Your task to perform on an android device: When is my next meeting? Image 0: 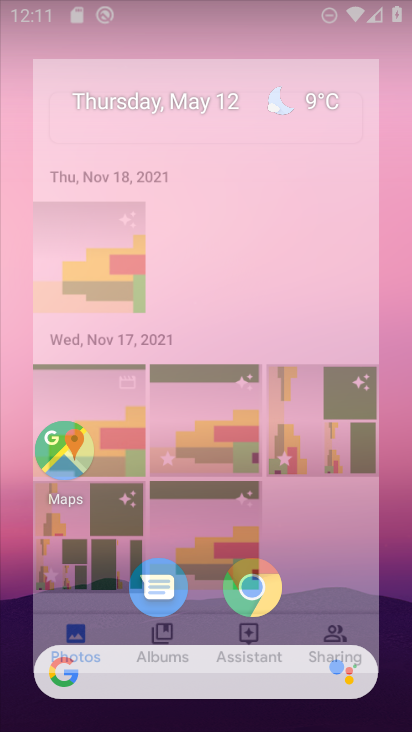
Step 0: drag from (340, 608) to (310, 185)
Your task to perform on an android device: When is my next meeting? Image 1: 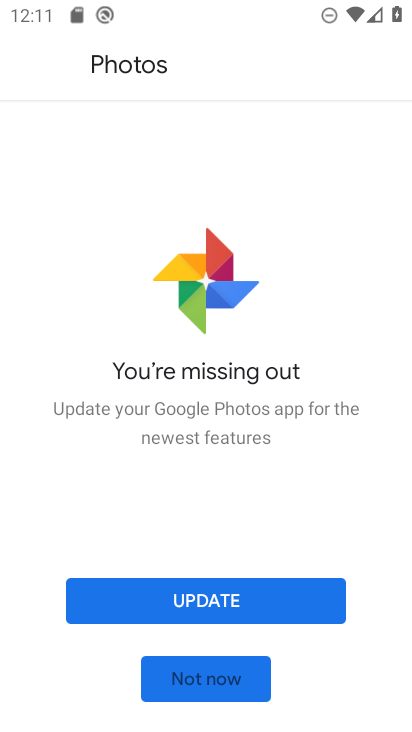
Step 1: press home button
Your task to perform on an android device: When is my next meeting? Image 2: 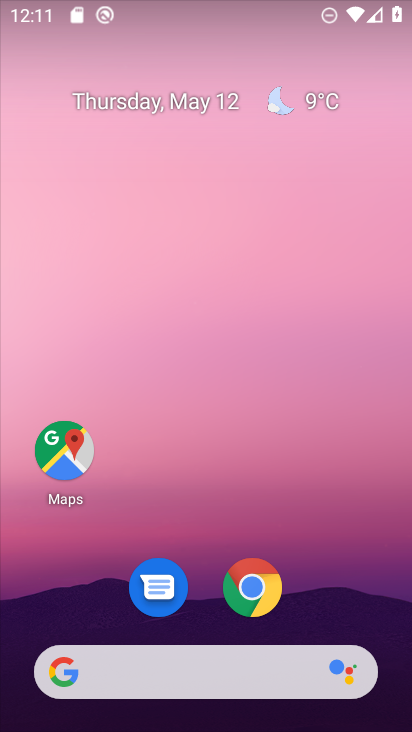
Step 2: drag from (317, 588) to (312, 227)
Your task to perform on an android device: When is my next meeting? Image 3: 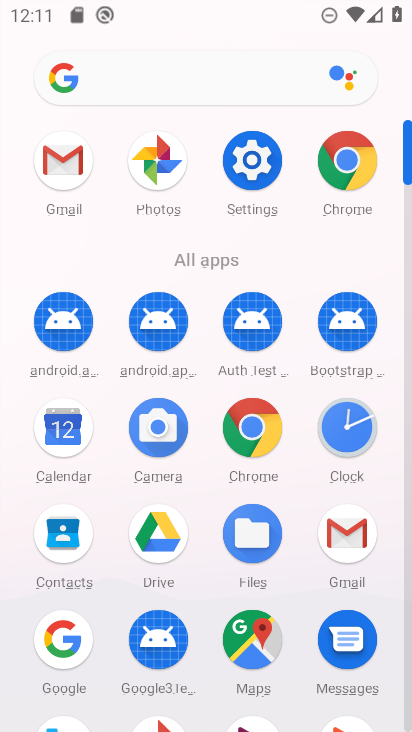
Step 3: click (61, 426)
Your task to perform on an android device: When is my next meeting? Image 4: 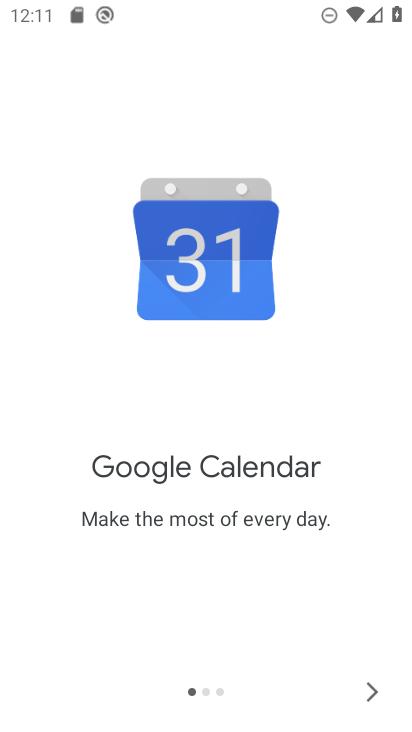
Step 4: click (355, 686)
Your task to perform on an android device: When is my next meeting? Image 5: 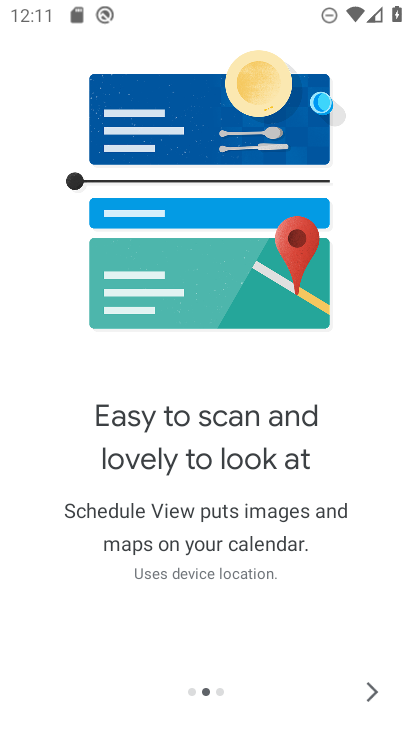
Step 5: click (365, 679)
Your task to perform on an android device: When is my next meeting? Image 6: 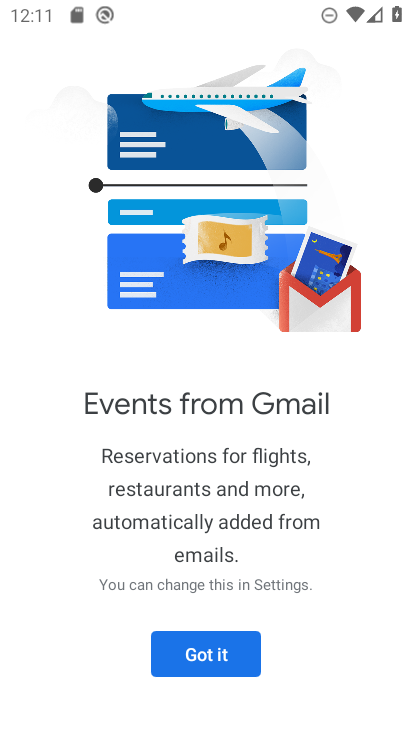
Step 6: click (238, 646)
Your task to perform on an android device: When is my next meeting? Image 7: 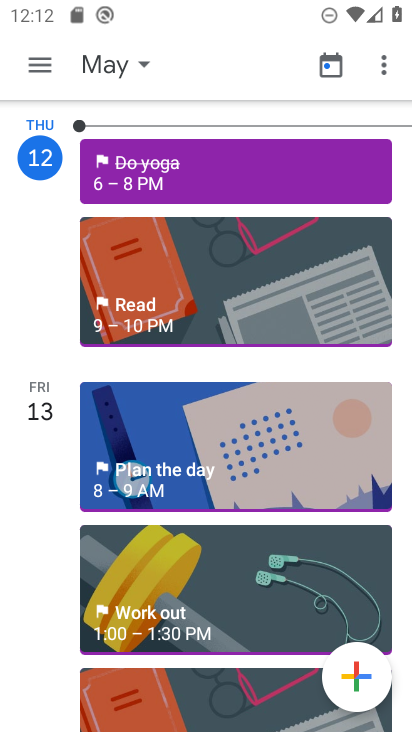
Step 7: click (28, 64)
Your task to perform on an android device: When is my next meeting? Image 8: 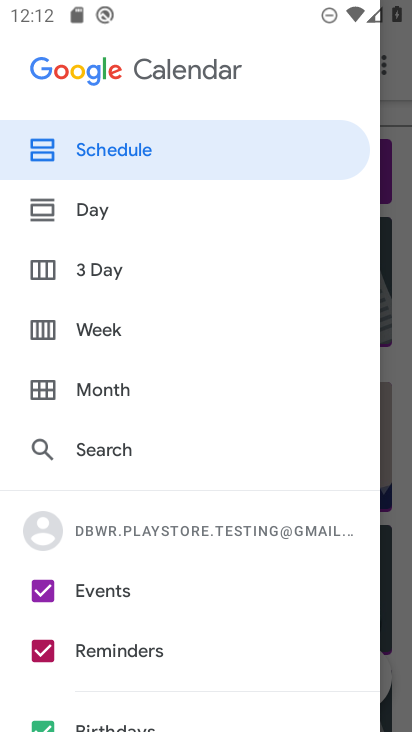
Step 8: click (141, 155)
Your task to perform on an android device: When is my next meeting? Image 9: 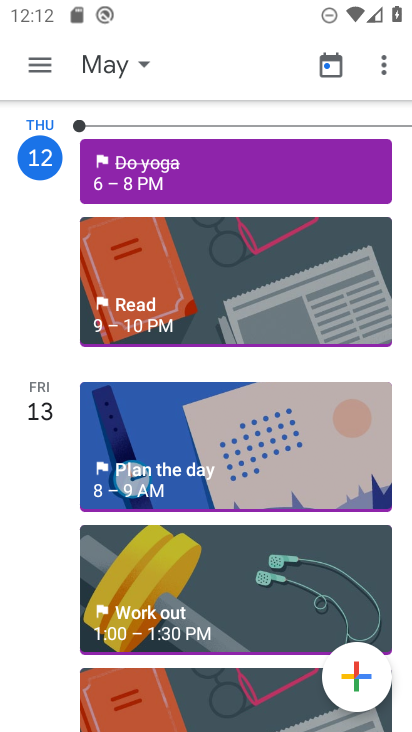
Step 9: task complete